Your task to perform on an android device: Go to battery settings Image 0: 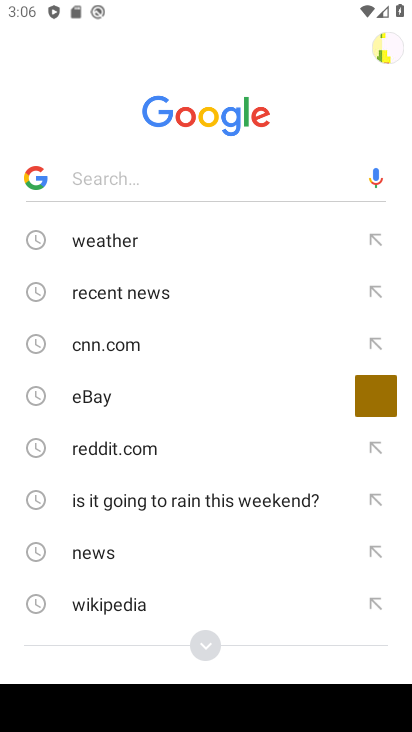
Step 0: press home button
Your task to perform on an android device: Go to battery settings Image 1: 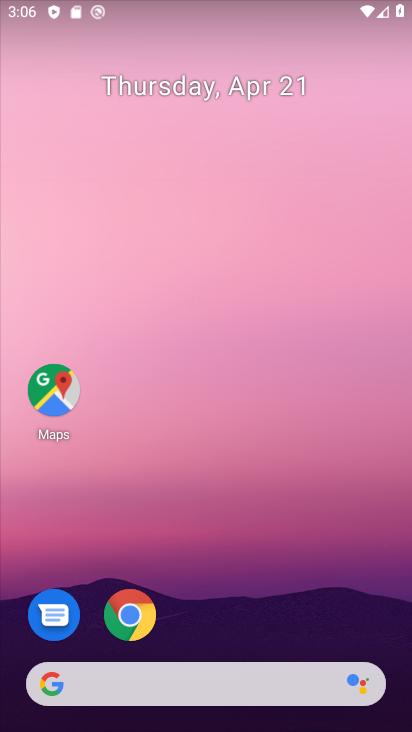
Step 1: click (130, 606)
Your task to perform on an android device: Go to battery settings Image 2: 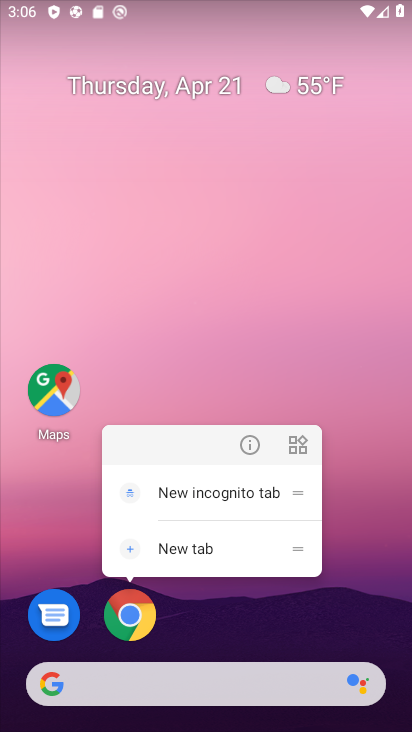
Step 2: click (244, 300)
Your task to perform on an android device: Go to battery settings Image 3: 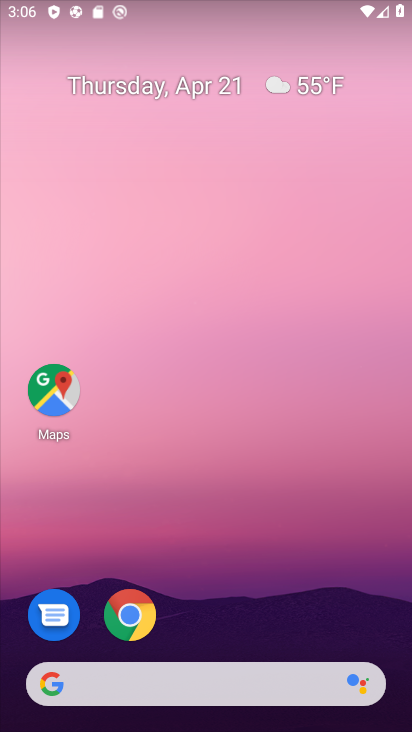
Step 3: click (128, 609)
Your task to perform on an android device: Go to battery settings Image 4: 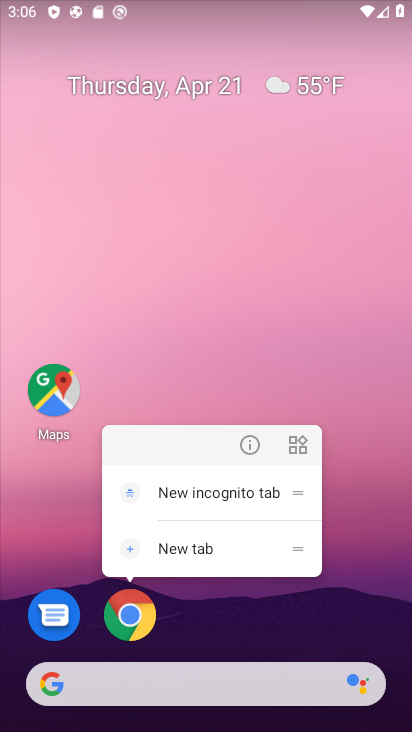
Step 4: click (124, 605)
Your task to perform on an android device: Go to battery settings Image 5: 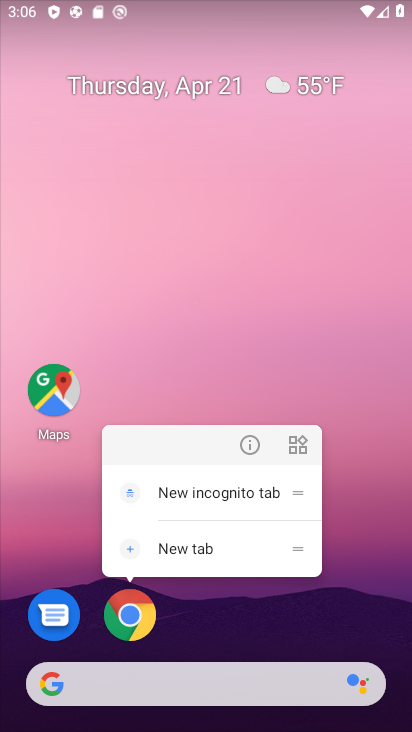
Step 5: click (124, 605)
Your task to perform on an android device: Go to battery settings Image 6: 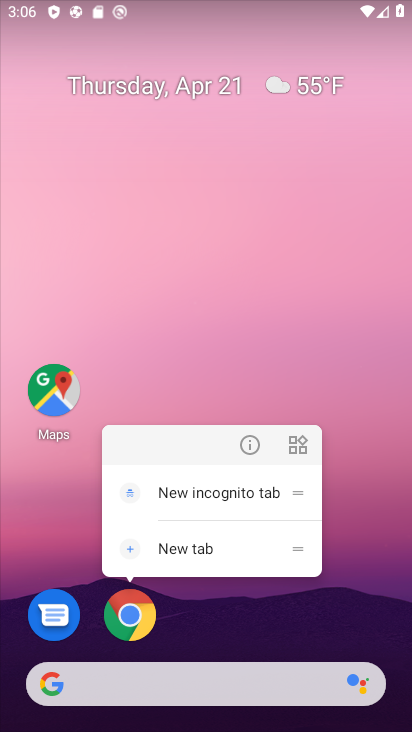
Step 6: click (124, 605)
Your task to perform on an android device: Go to battery settings Image 7: 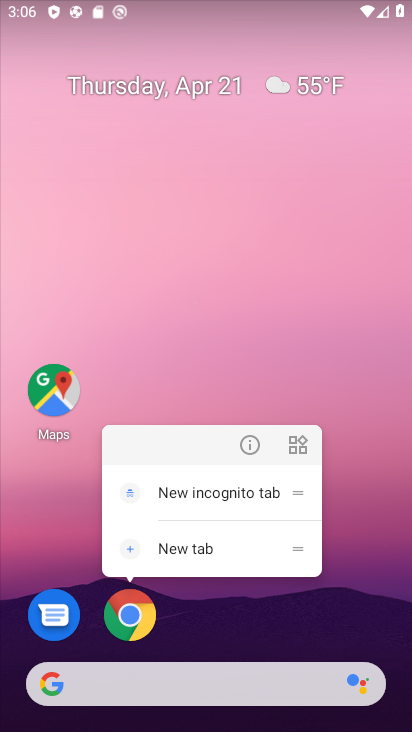
Step 7: click (191, 610)
Your task to perform on an android device: Go to battery settings Image 8: 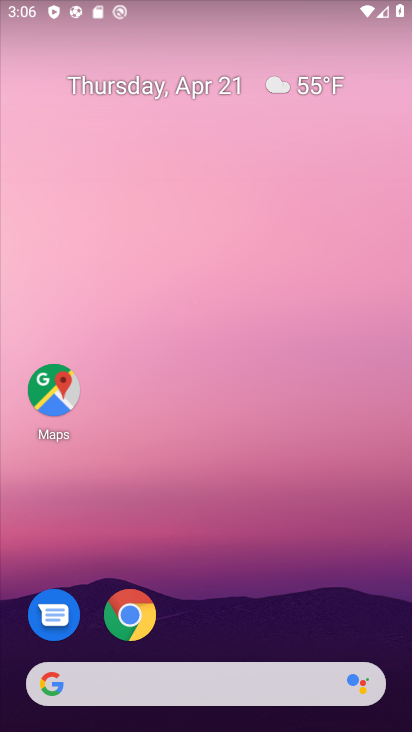
Step 8: drag from (212, 633) to (224, 41)
Your task to perform on an android device: Go to battery settings Image 9: 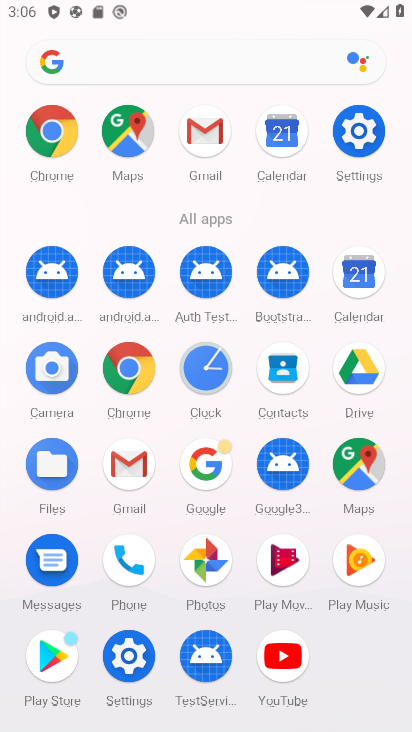
Step 9: click (357, 132)
Your task to perform on an android device: Go to battery settings Image 10: 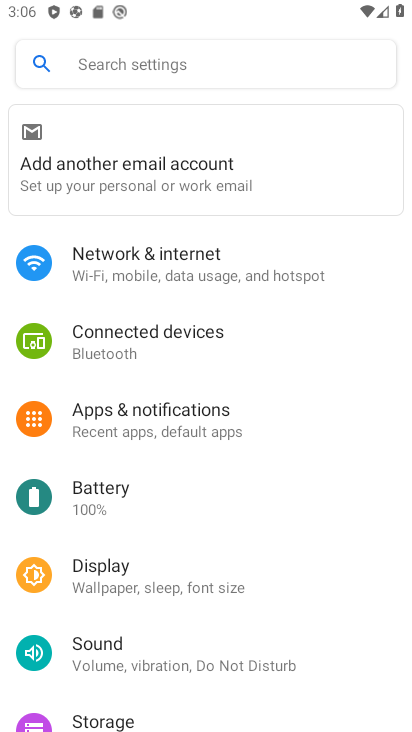
Step 10: click (138, 493)
Your task to perform on an android device: Go to battery settings Image 11: 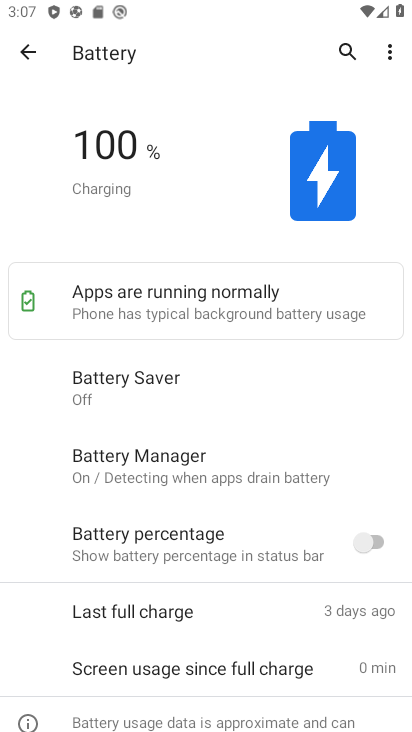
Step 11: task complete